Your task to perform on an android device: turn off location history Image 0: 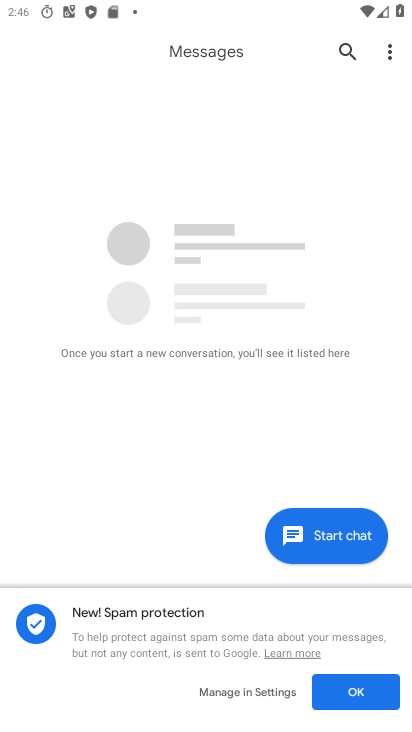
Step 0: press home button
Your task to perform on an android device: turn off location history Image 1: 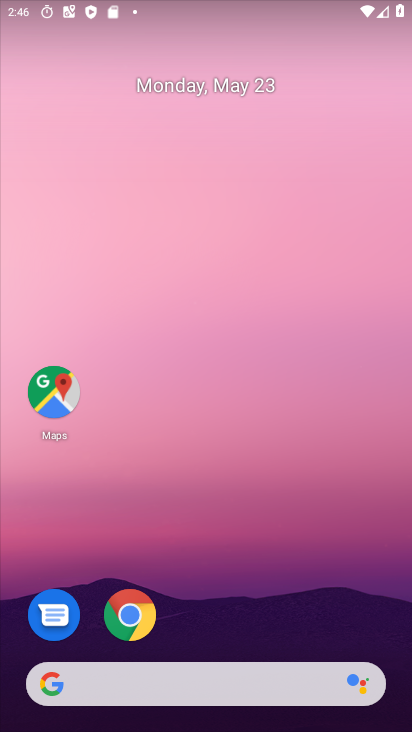
Step 1: click (55, 395)
Your task to perform on an android device: turn off location history Image 2: 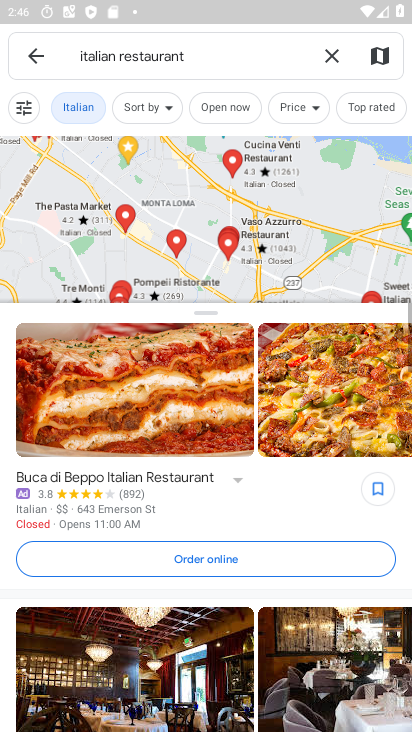
Step 2: click (339, 57)
Your task to perform on an android device: turn off location history Image 3: 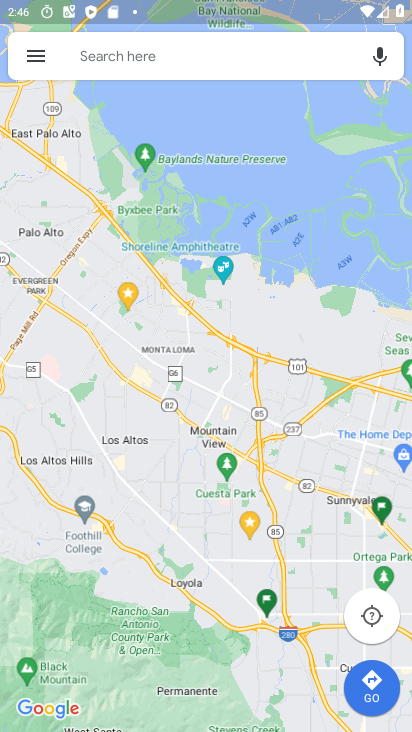
Step 3: click (34, 53)
Your task to perform on an android device: turn off location history Image 4: 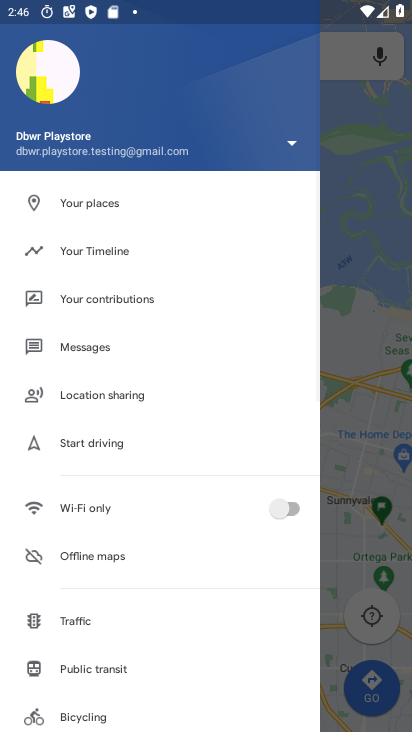
Step 4: click (90, 247)
Your task to perform on an android device: turn off location history Image 5: 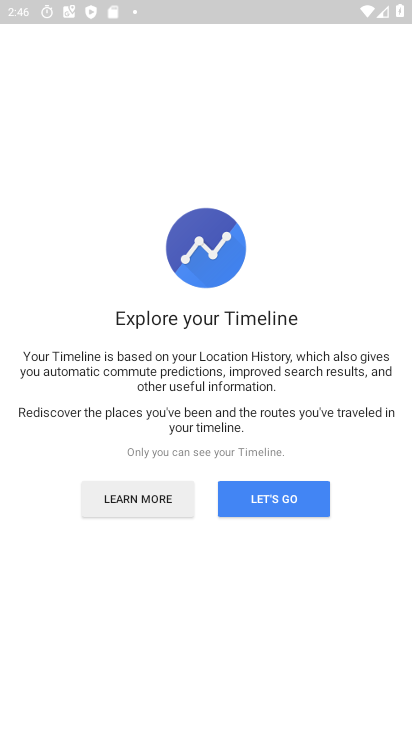
Step 5: click (262, 497)
Your task to perform on an android device: turn off location history Image 6: 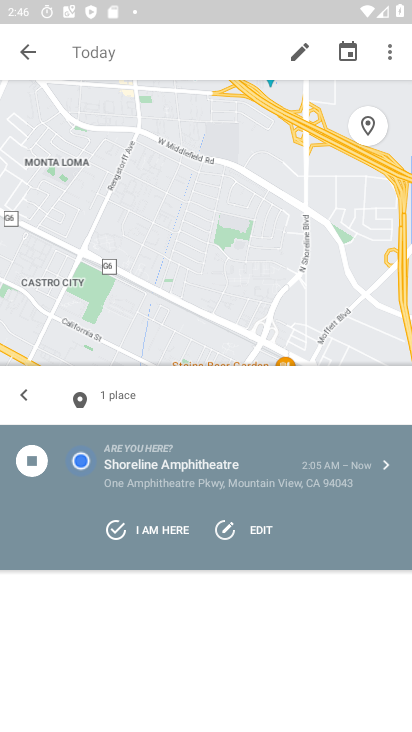
Step 6: click (393, 53)
Your task to perform on an android device: turn off location history Image 7: 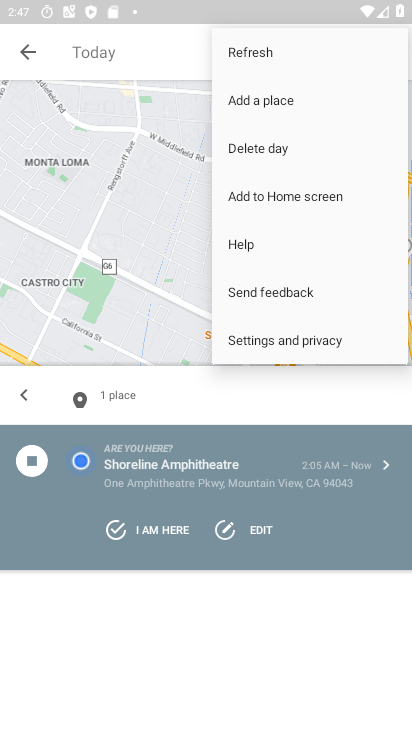
Step 7: click (270, 341)
Your task to perform on an android device: turn off location history Image 8: 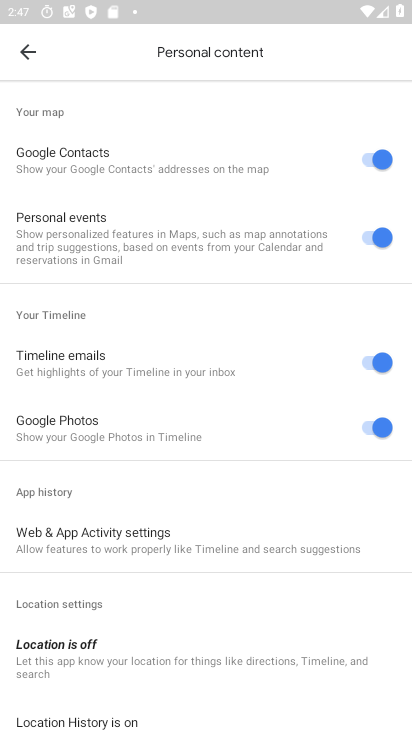
Step 8: drag from (170, 592) to (170, 170)
Your task to perform on an android device: turn off location history Image 9: 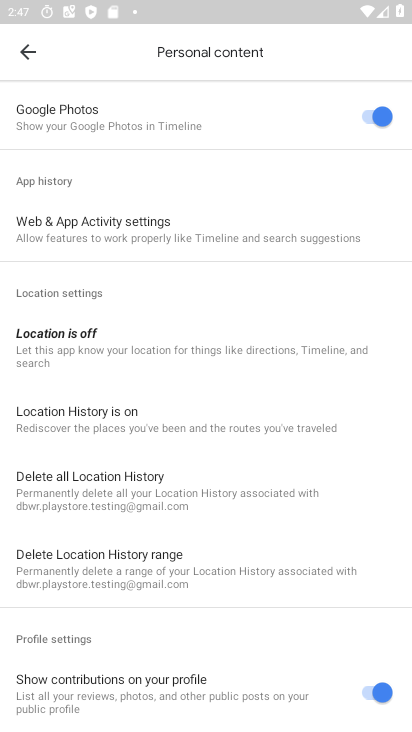
Step 9: click (88, 422)
Your task to perform on an android device: turn off location history Image 10: 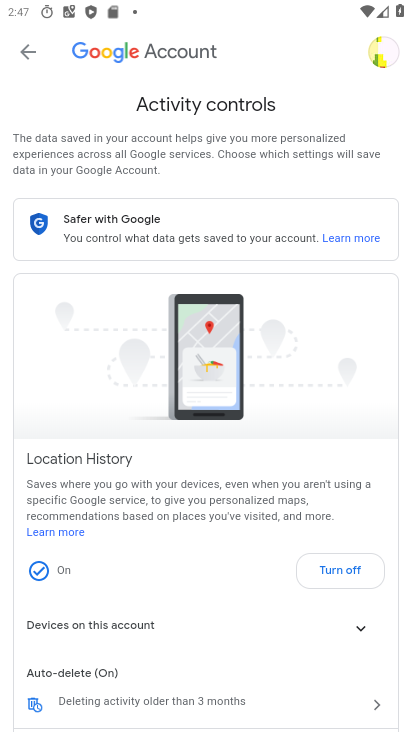
Step 10: click (343, 573)
Your task to perform on an android device: turn off location history Image 11: 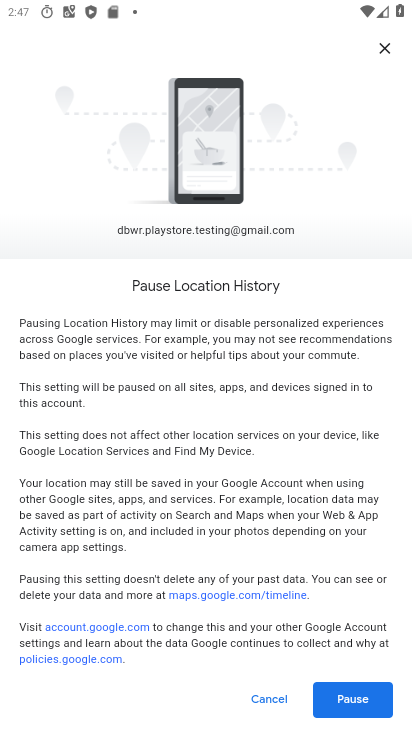
Step 11: click (350, 703)
Your task to perform on an android device: turn off location history Image 12: 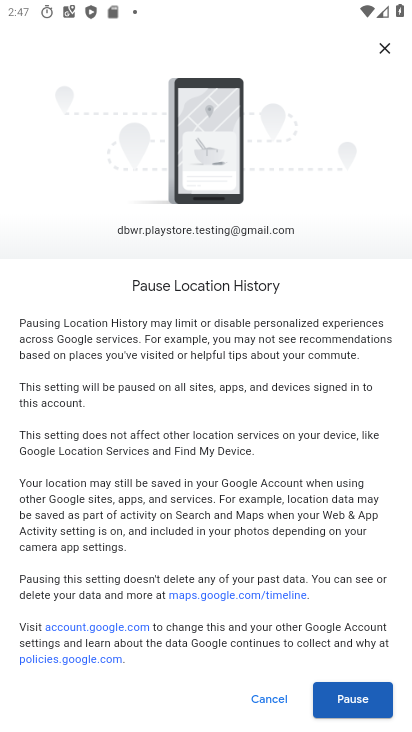
Step 12: click (353, 699)
Your task to perform on an android device: turn off location history Image 13: 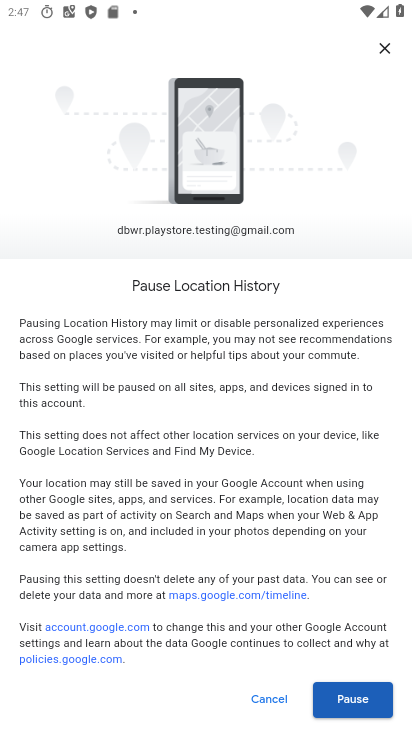
Step 13: click (358, 706)
Your task to perform on an android device: turn off location history Image 14: 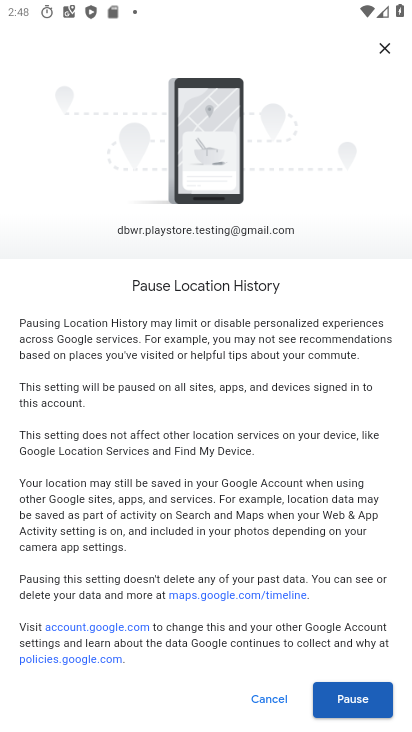
Step 14: click (357, 708)
Your task to perform on an android device: turn off location history Image 15: 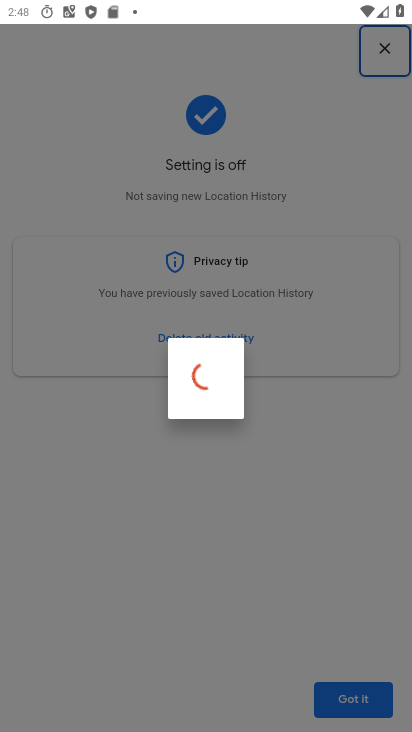
Step 15: click (236, 456)
Your task to perform on an android device: turn off location history Image 16: 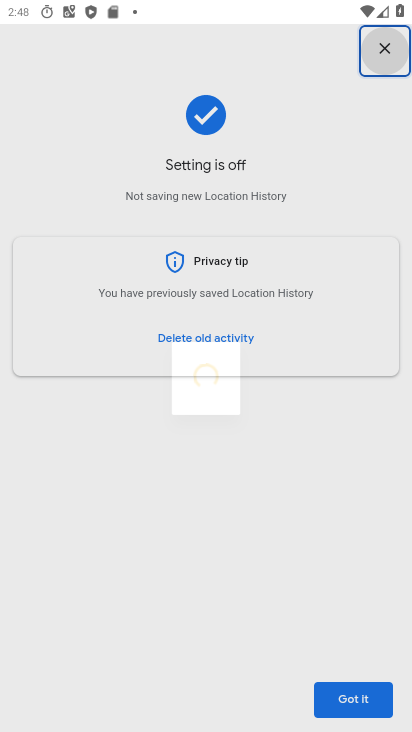
Step 16: click (365, 704)
Your task to perform on an android device: turn off location history Image 17: 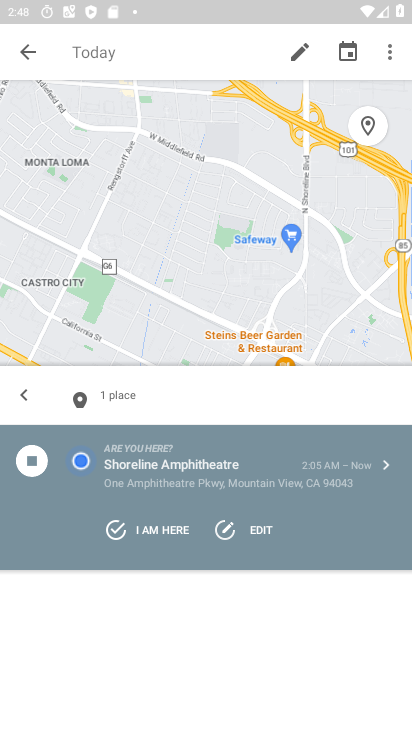
Step 17: task complete